Your task to perform on an android device: Open Google Chrome and click the shortcut for Amazon.com Image 0: 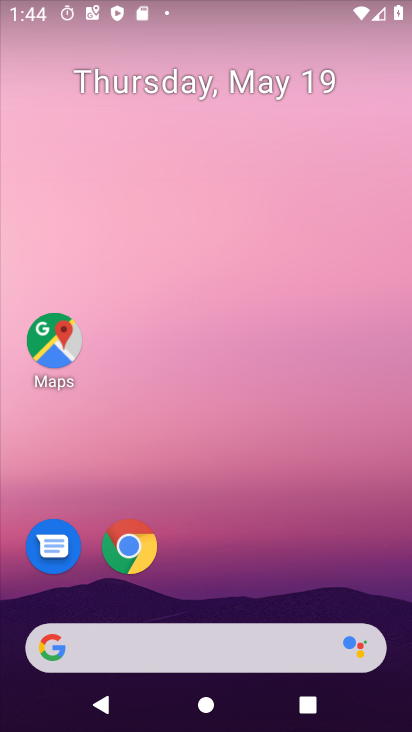
Step 0: click (133, 541)
Your task to perform on an android device: Open Google Chrome and click the shortcut for Amazon.com Image 1: 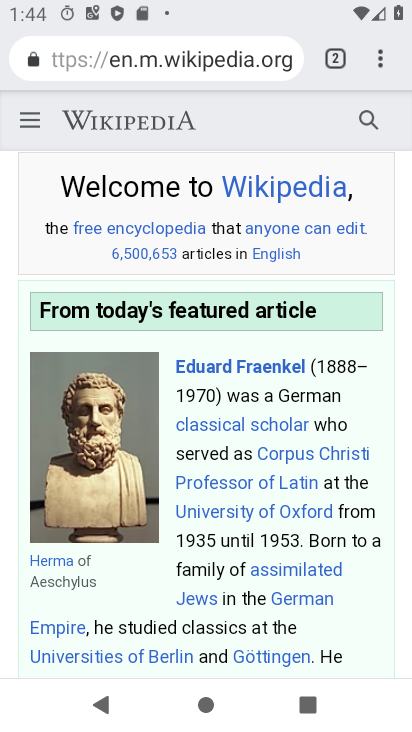
Step 1: click (335, 61)
Your task to perform on an android device: Open Google Chrome and click the shortcut for Amazon.com Image 2: 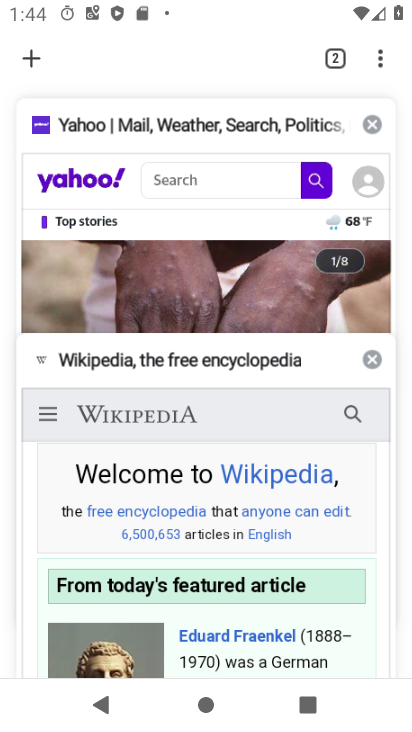
Step 2: click (35, 65)
Your task to perform on an android device: Open Google Chrome and click the shortcut for Amazon.com Image 3: 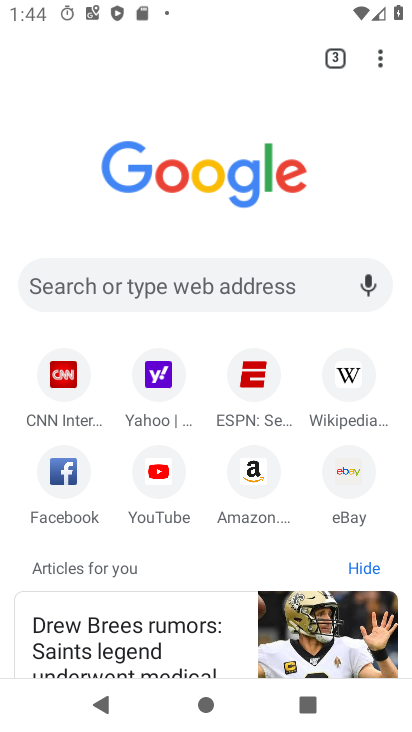
Step 3: click (246, 460)
Your task to perform on an android device: Open Google Chrome and click the shortcut for Amazon.com Image 4: 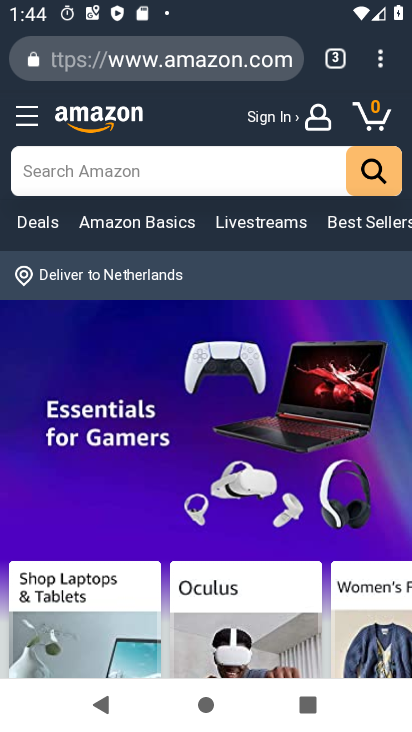
Step 4: task complete